Your task to perform on an android device: delete a single message in the gmail app Image 0: 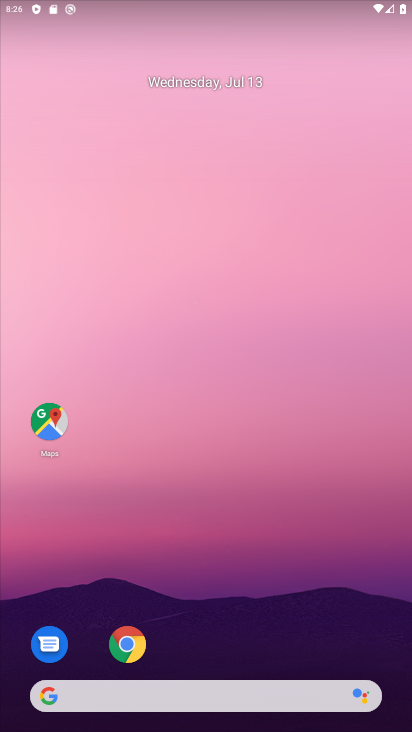
Step 0: drag from (227, 681) to (172, 153)
Your task to perform on an android device: delete a single message in the gmail app Image 1: 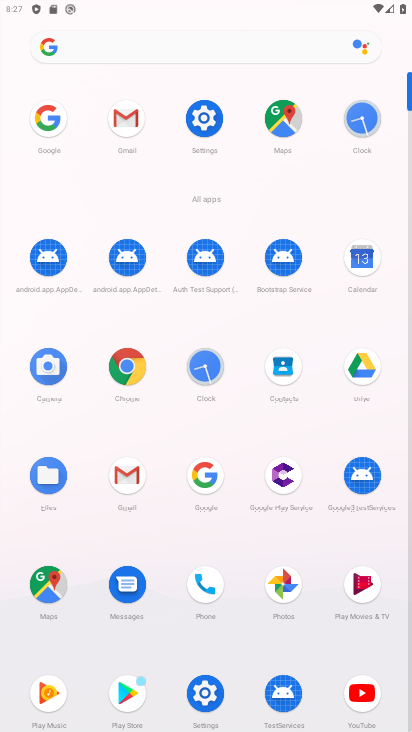
Step 1: click (122, 466)
Your task to perform on an android device: delete a single message in the gmail app Image 2: 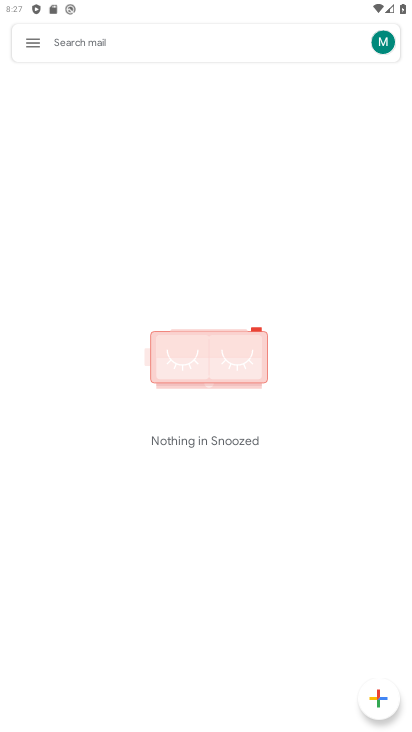
Step 2: click (40, 43)
Your task to perform on an android device: delete a single message in the gmail app Image 3: 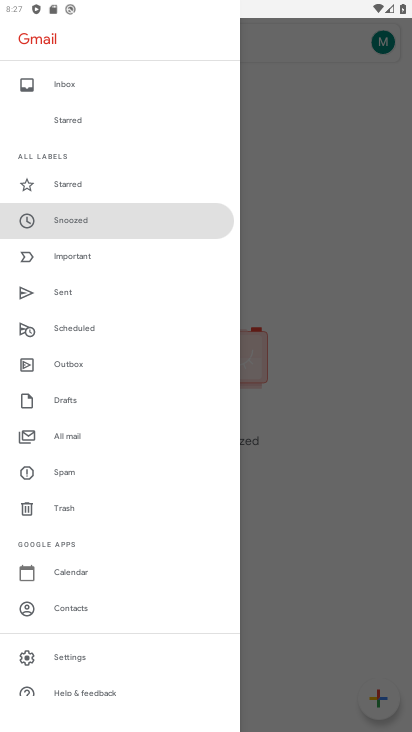
Step 3: click (65, 86)
Your task to perform on an android device: delete a single message in the gmail app Image 4: 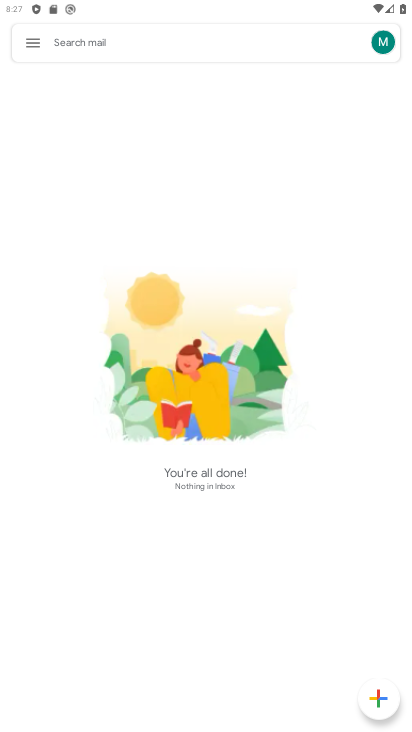
Step 4: task complete